Your task to perform on an android device: Open maps Image 0: 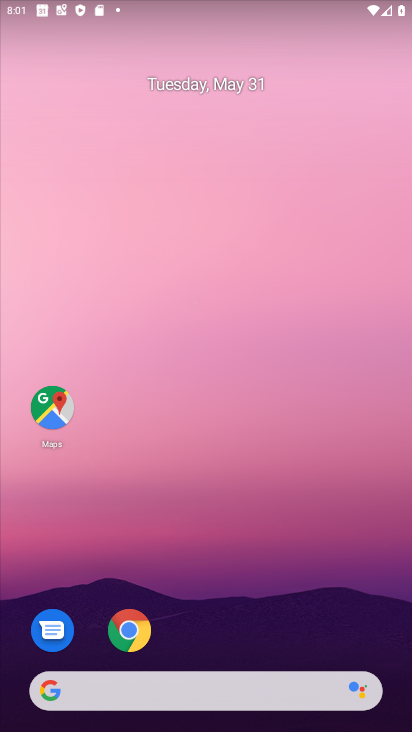
Step 0: click (62, 409)
Your task to perform on an android device: Open maps Image 1: 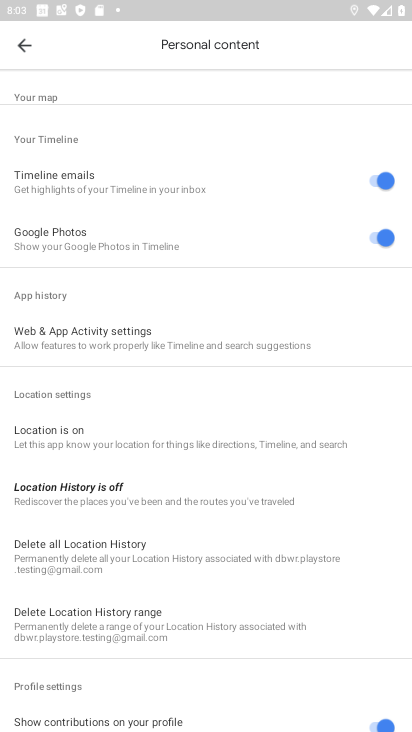
Step 1: click (31, 43)
Your task to perform on an android device: Open maps Image 2: 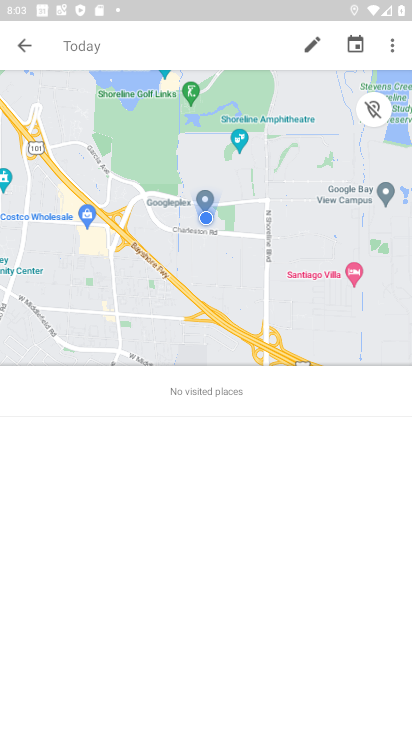
Step 2: task complete